Your task to perform on an android device: allow notifications from all sites in the chrome app Image 0: 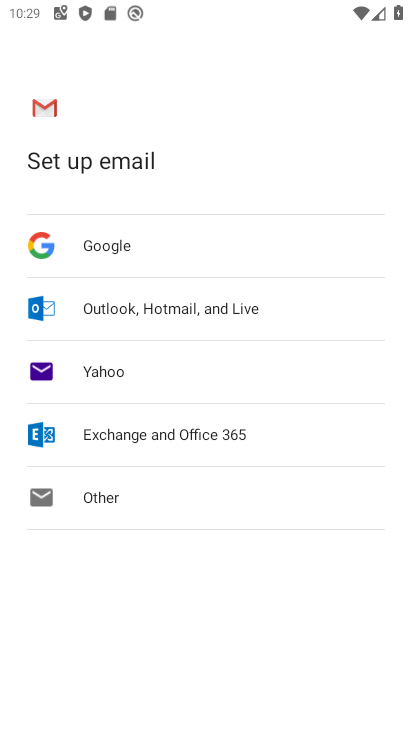
Step 0: press home button
Your task to perform on an android device: allow notifications from all sites in the chrome app Image 1: 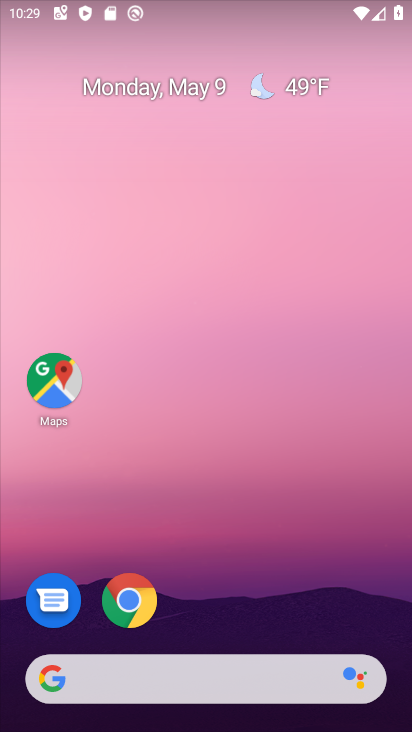
Step 1: drag from (357, 553) to (342, 130)
Your task to perform on an android device: allow notifications from all sites in the chrome app Image 2: 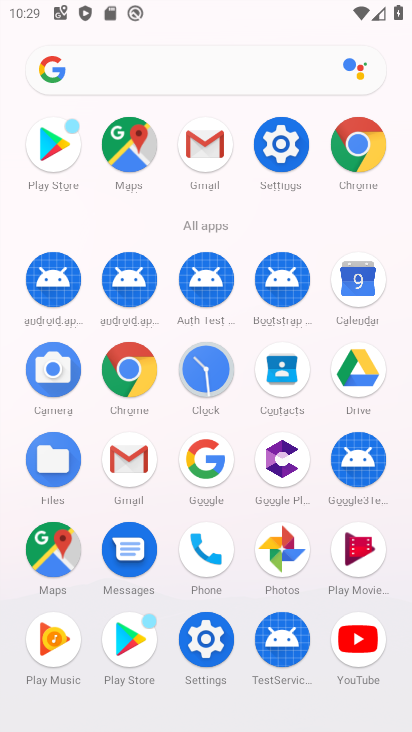
Step 2: click (146, 379)
Your task to perform on an android device: allow notifications from all sites in the chrome app Image 3: 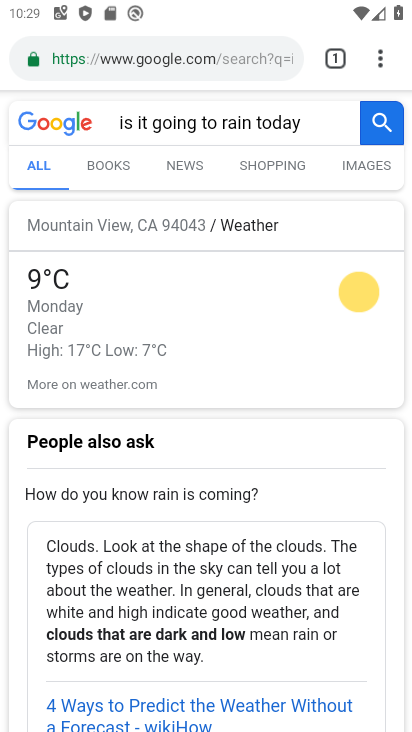
Step 3: drag from (379, 58) to (241, 625)
Your task to perform on an android device: allow notifications from all sites in the chrome app Image 4: 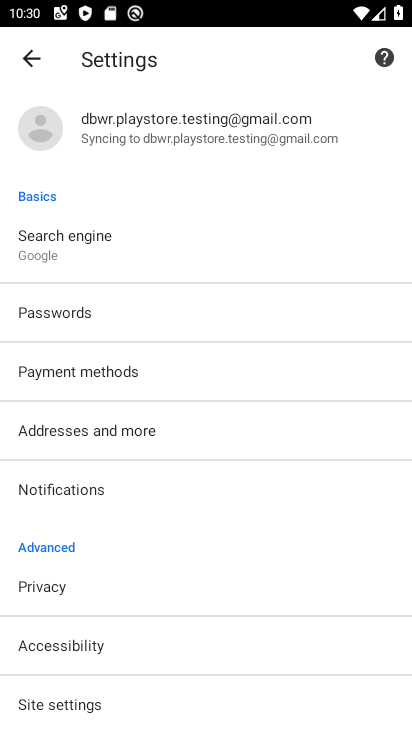
Step 4: drag from (216, 704) to (320, 364)
Your task to perform on an android device: allow notifications from all sites in the chrome app Image 5: 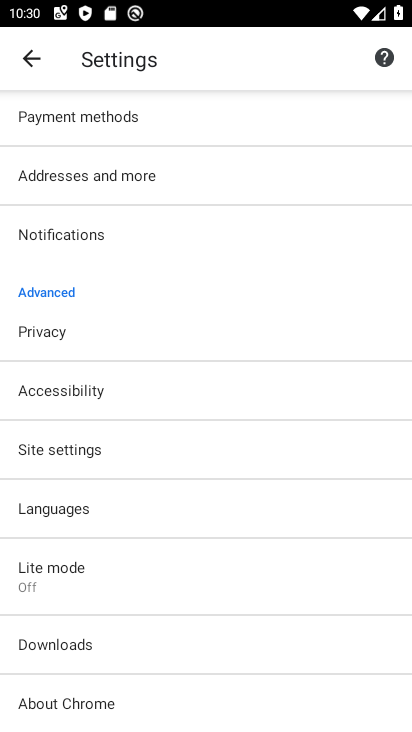
Step 5: click (167, 459)
Your task to perform on an android device: allow notifications from all sites in the chrome app Image 6: 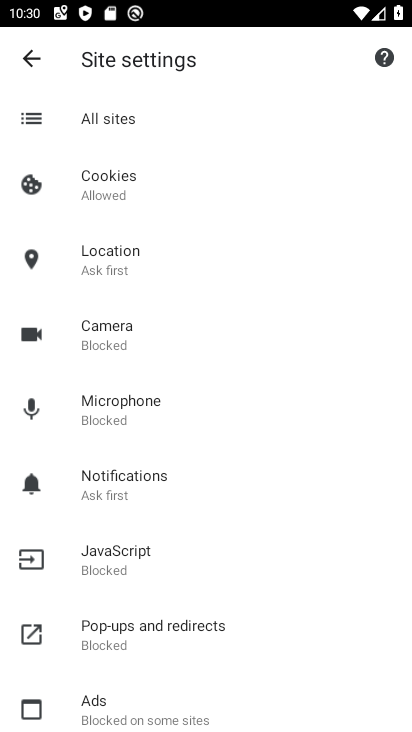
Step 6: click (124, 114)
Your task to perform on an android device: allow notifications from all sites in the chrome app Image 7: 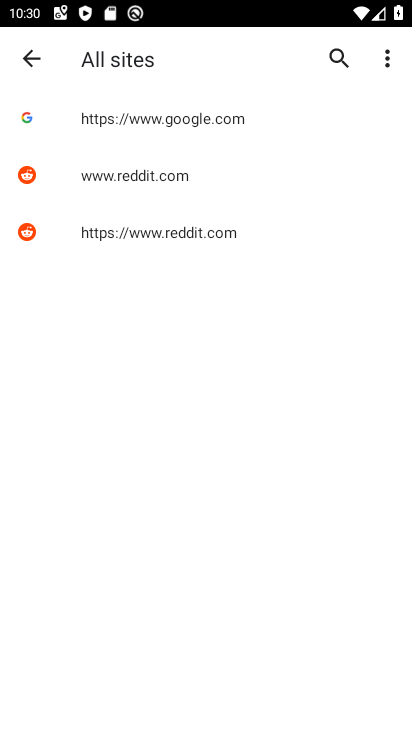
Step 7: click (119, 110)
Your task to perform on an android device: allow notifications from all sites in the chrome app Image 8: 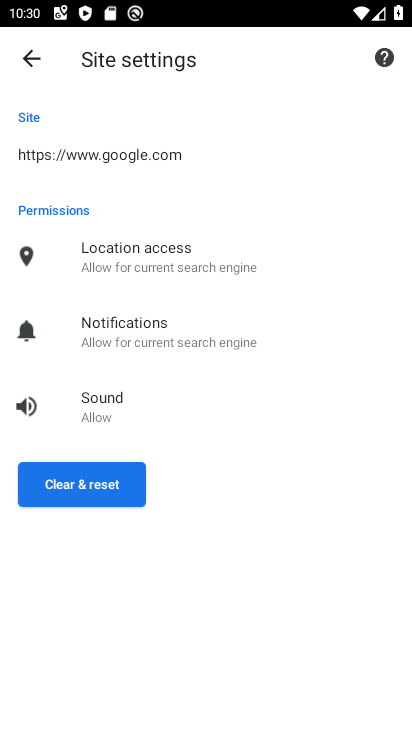
Step 8: task complete